Your task to perform on an android device: Open Youtube and go to "Your channel" Image 0: 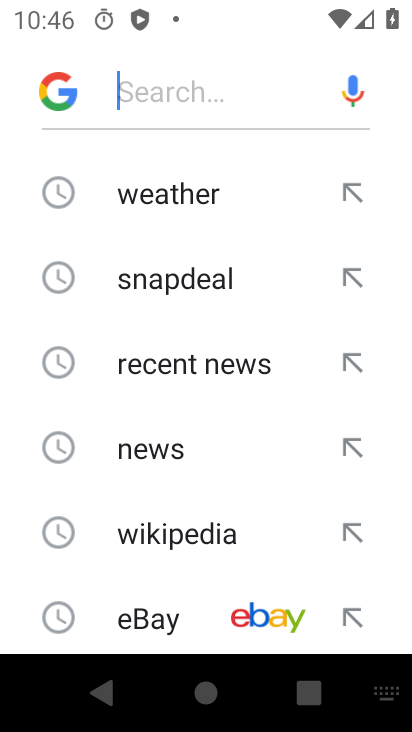
Step 0: click (196, 688)
Your task to perform on an android device: Open Youtube and go to "Your channel" Image 1: 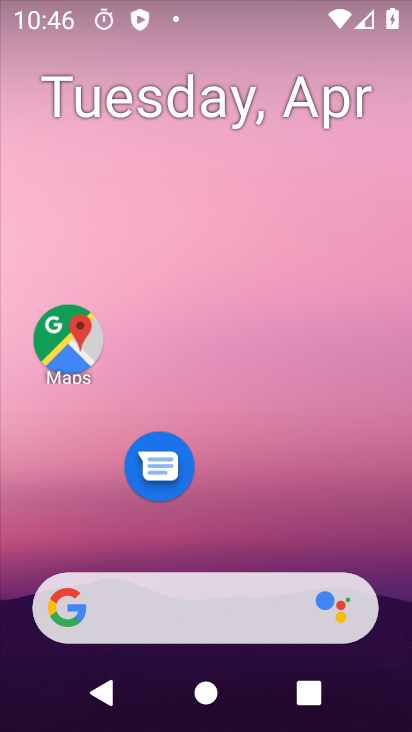
Step 1: drag from (349, 477) to (334, 116)
Your task to perform on an android device: Open Youtube and go to "Your channel" Image 2: 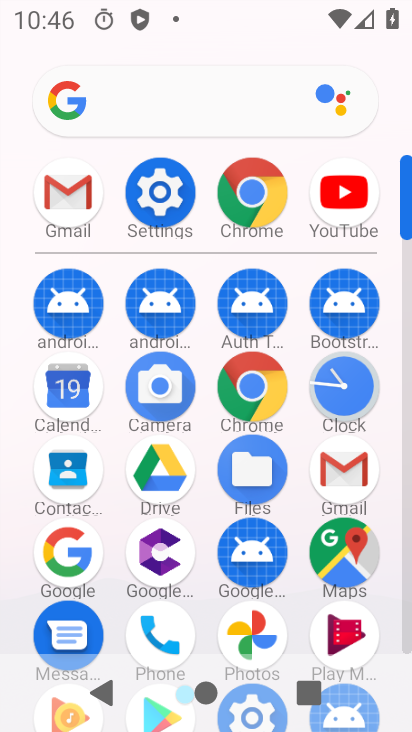
Step 2: click (353, 186)
Your task to perform on an android device: Open Youtube and go to "Your channel" Image 3: 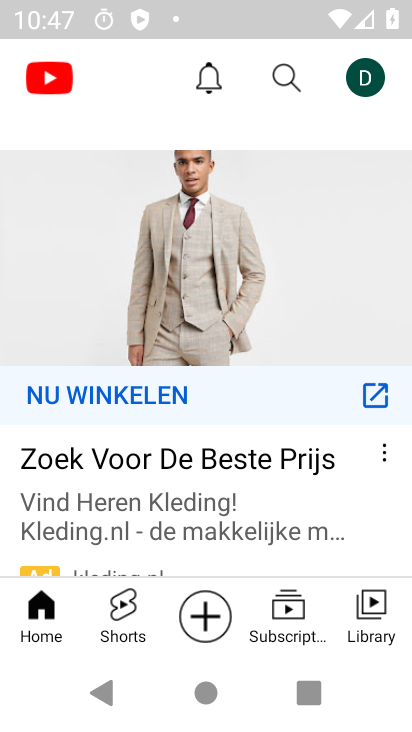
Step 3: click (356, 82)
Your task to perform on an android device: Open Youtube and go to "Your channel" Image 4: 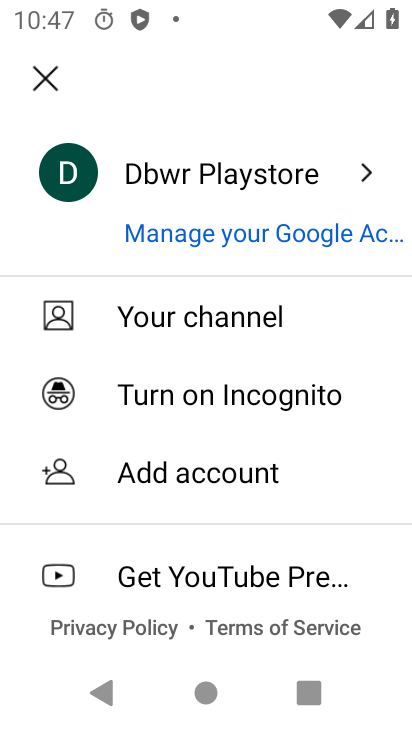
Step 4: click (262, 319)
Your task to perform on an android device: Open Youtube and go to "Your channel" Image 5: 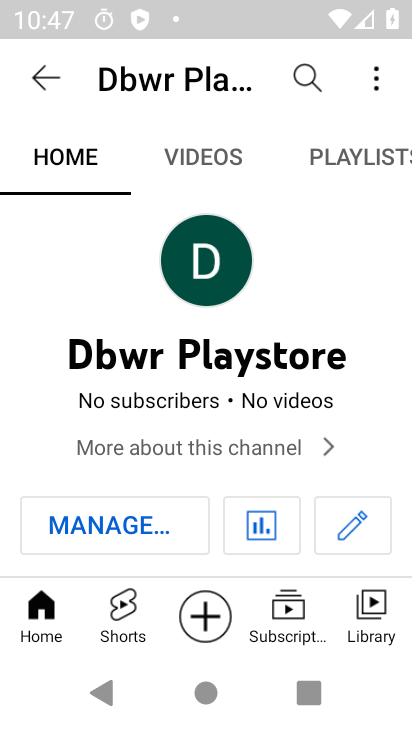
Step 5: task complete